Your task to perform on an android device: clear history in the chrome app Image 0: 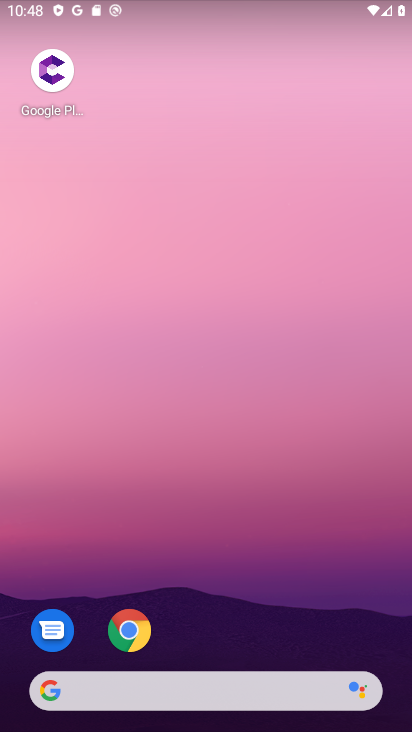
Step 0: click (140, 634)
Your task to perform on an android device: clear history in the chrome app Image 1: 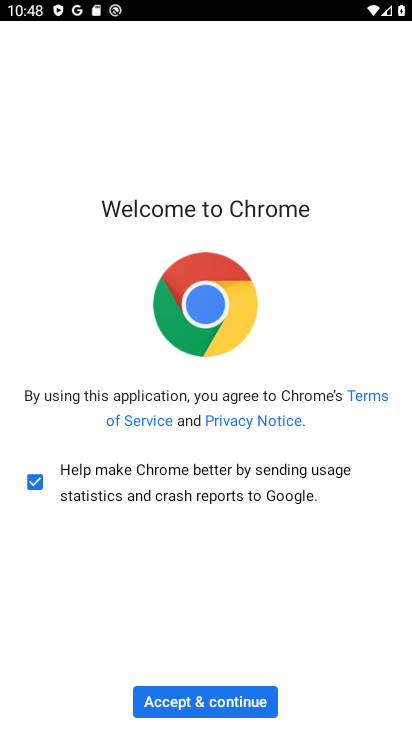
Step 1: click (230, 701)
Your task to perform on an android device: clear history in the chrome app Image 2: 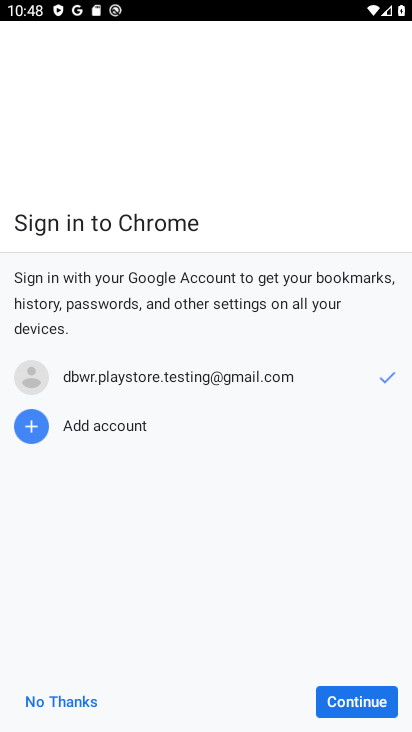
Step 2: click (382, 714)
Your task to perform on an android device: clear history in the chrome app Image 3: 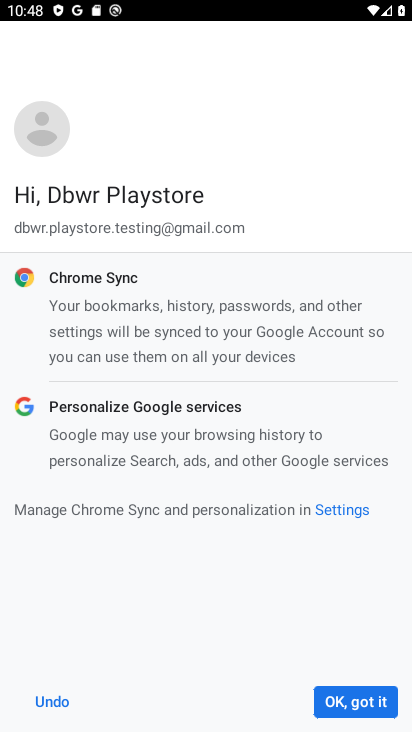
Step 3: click (358, 698)
Your task to perform on an android device: clear history in the chrome app Image 4: 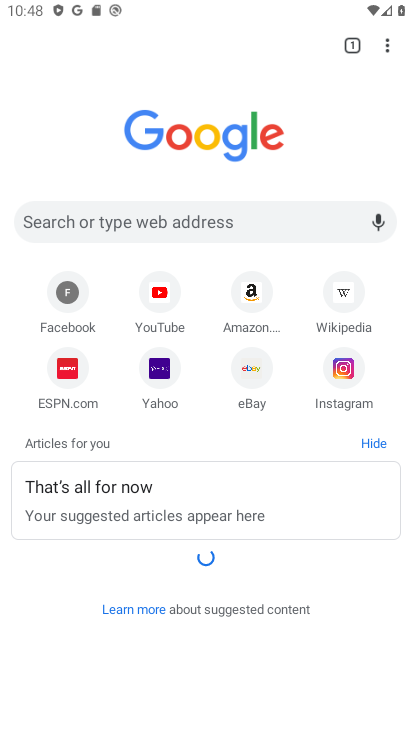
Step 4: click (386, 49)
Your task to perform on an android device: clear history in the chrome app Image 5: 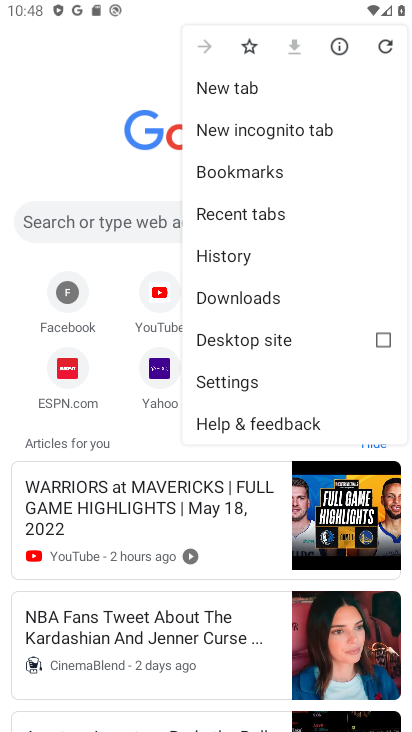
Step 5: click (232, 254)
Your task to perform on an android device: clear history in the chrome app Image 6: 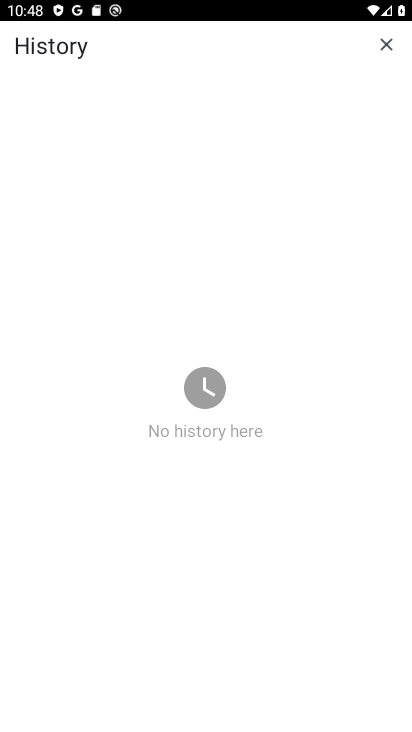
Step 6: task complete